Your task to perform on an android device: choose inbox layout in the gmail app Image 0: 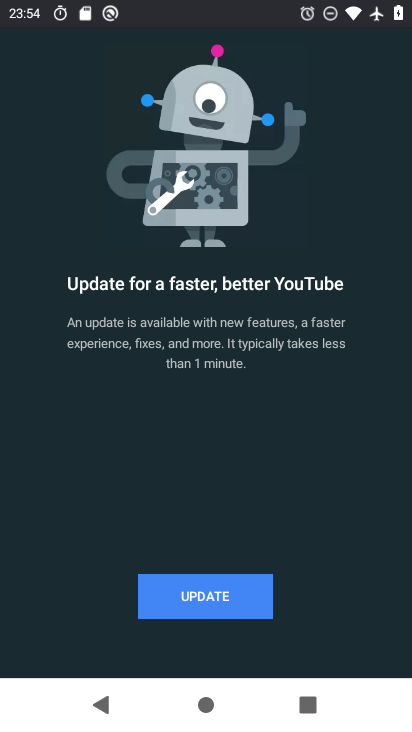
Step 0: press home button
Your task to perform on an android device: choose inbox layout in the gmail app Image 1: 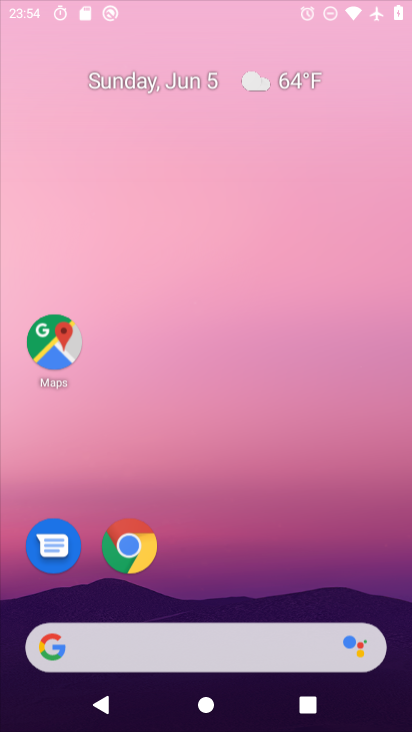
Step 1: drag from (205, 505) to (308, 28)
Your task to perform on an android device: choose inbox layout in the gmail app Image 2: 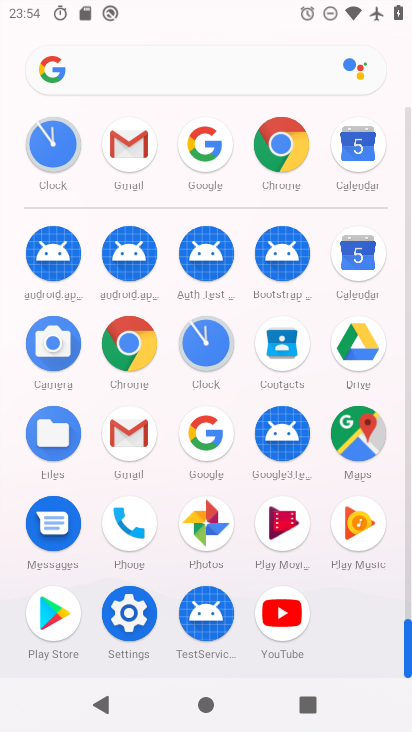
Step 2: click (131, 433)
Your task to perform on an android device: choose inbox layout in the gmail app Image 3: 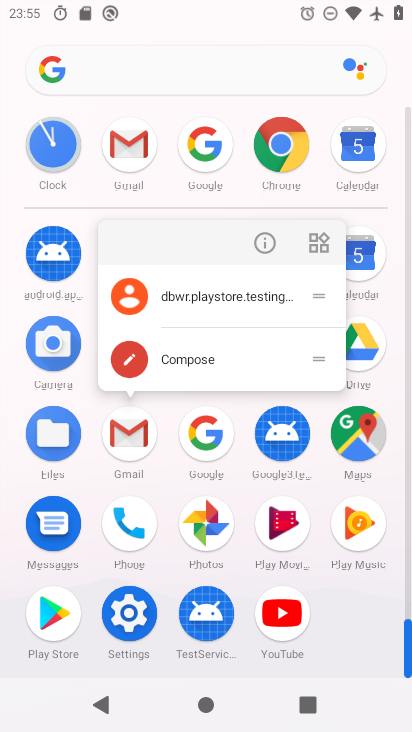
Step 3: click (260, 246)
Your task to perform on an android device: choose inbox layout in the gmail app Image 4: 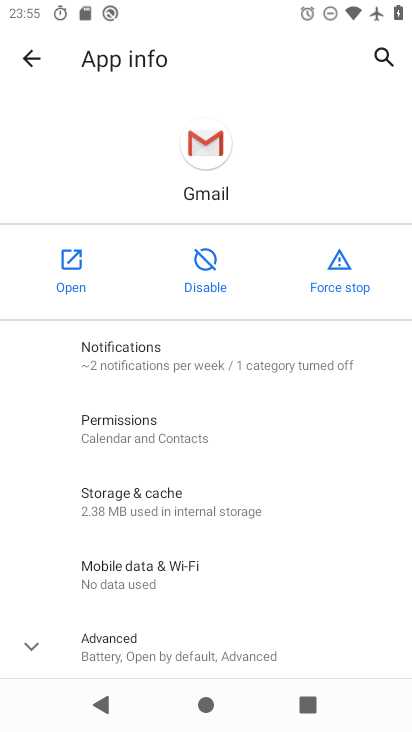
Step 4: click (75, 262)
Your task to perform on an android device: choose inbox layout in the gmail app Image 5: 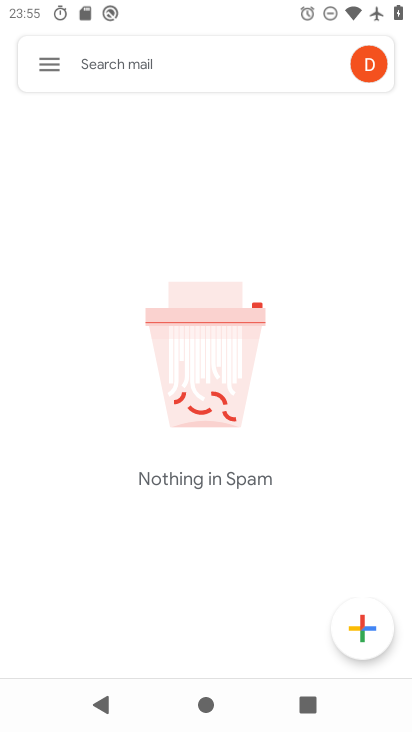
Step 5: click (44, 69)
Your task to perform on an android device: choose inbox layout in the gmail app Image 6: 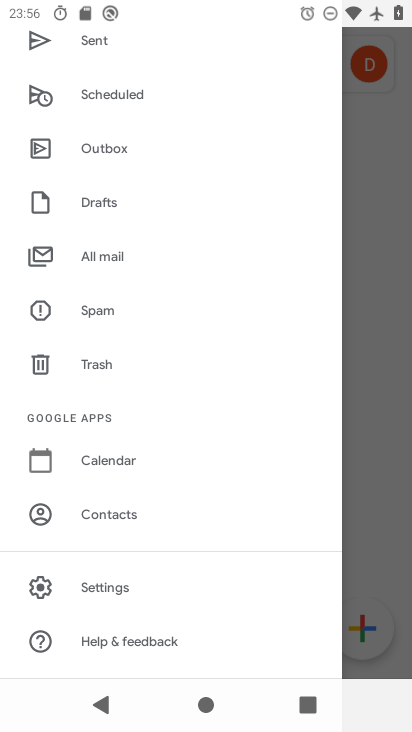
Step 6: drag from (174, 77) to (207, 603)
Your task to perform on an android device: choose inbox layout in the gmail app Image 7: 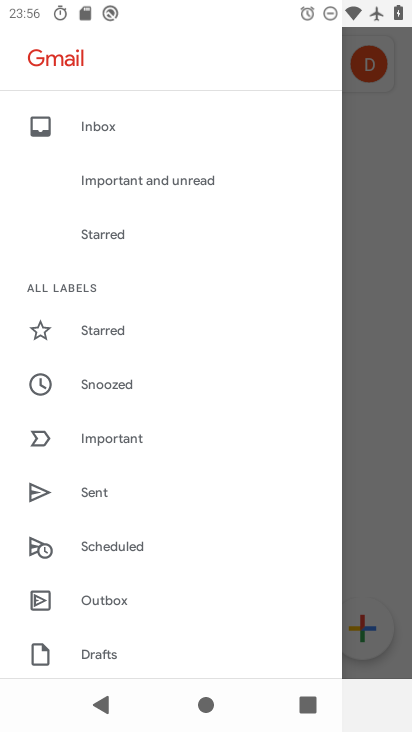
Step 7: click (97, 136)
Your task to perform on an android device: choose inbox layout in the gmail app Image 8: 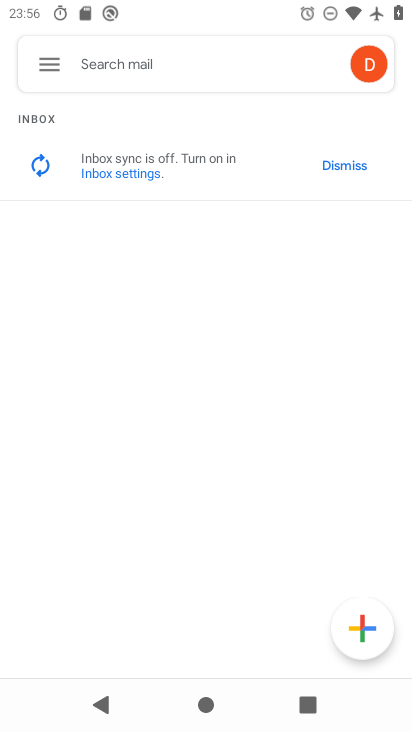
Step 8: drag from (276, 451) to (259, 190)
Your task to perform on an android device: choose inbox layout in the gmail app Image 9: 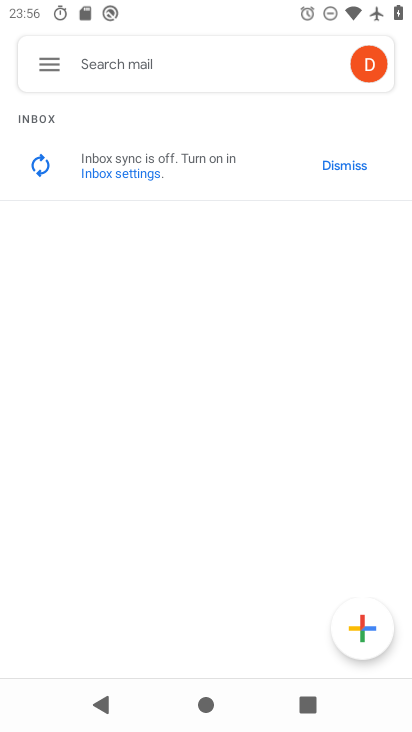
Step 9: drag from (252, 500) to (260, 301)
Your task to perform on an android device: choose inbox layout in the gmail app Image 10: 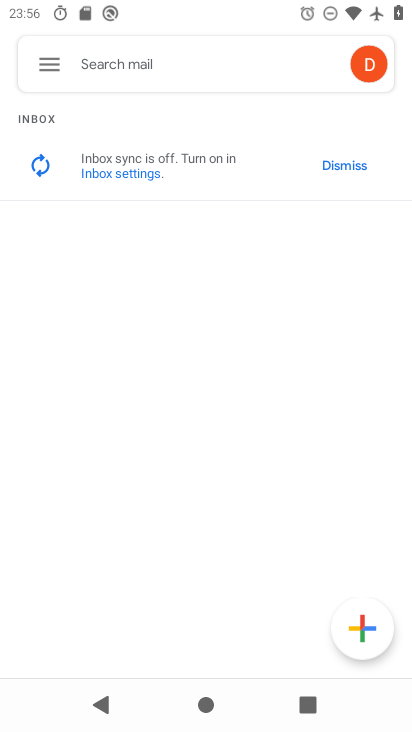
Step 10: click (49, 75)
Your task to perform on an android device: choose inbox layout in the gmail app Image 11: 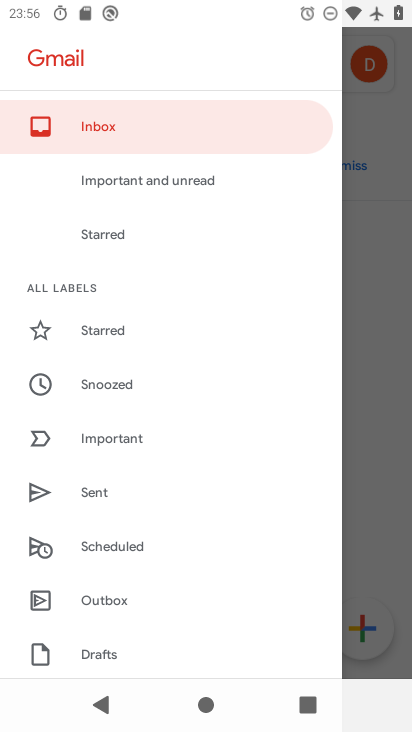
Step 11: click (143, 144)
Your task to perform on an android device: choose inbox layout in the gmail app Image 12: 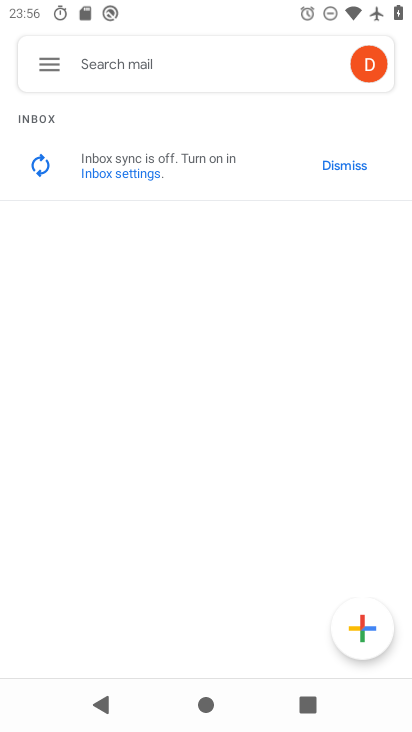
Step 12: drag from (180, 501) to (214, 285)
Your task to perform on an android device: choose inbox layout in the gmail app Image 13: 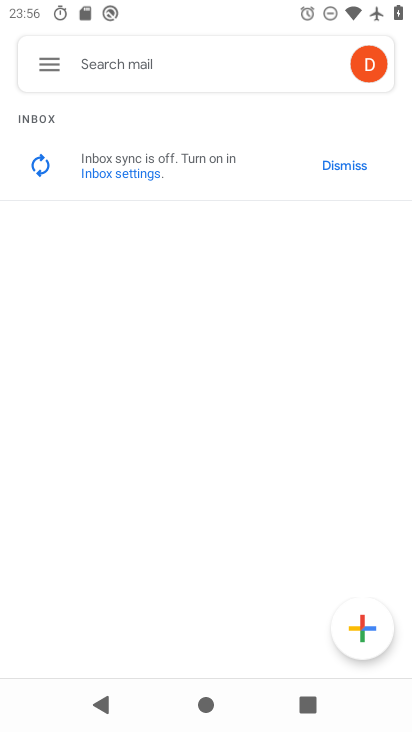
Step 13: drag from (252, 424) to (243, 298)
Your task to perform on an android device: choose inbox layout in the gmail app Image 14: 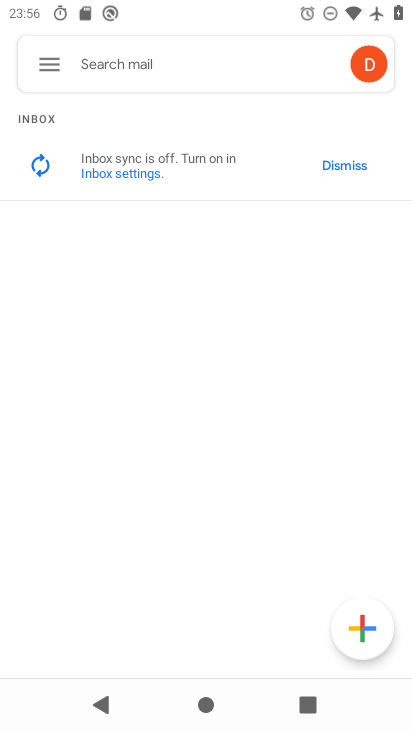
Step 14: drag from (226, 425) to (257, 296)
Your task to perform on an android device: choose inbox layout in the gmail app Image 15: 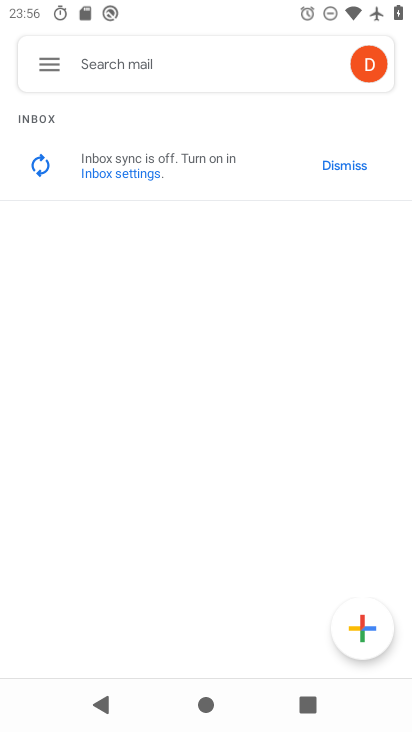
Step 15: click (56, 56)
Your task to perform on an android device: choose inbox layout in the gmail app Image 16: 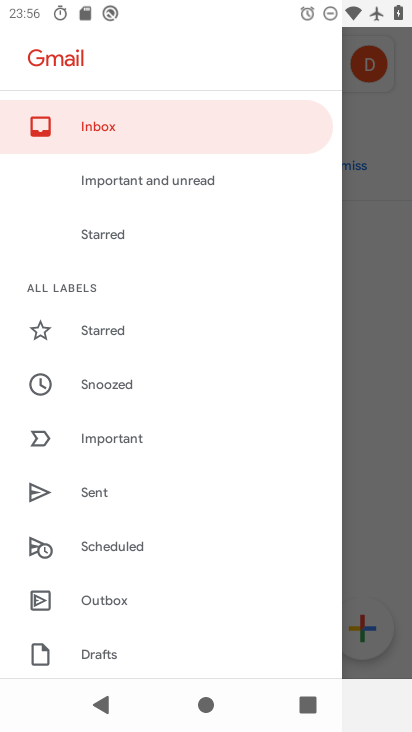
Step 16: click (396, 420)
Your task to perform on an android device: choose inbox layout in the gmail app Image 17: 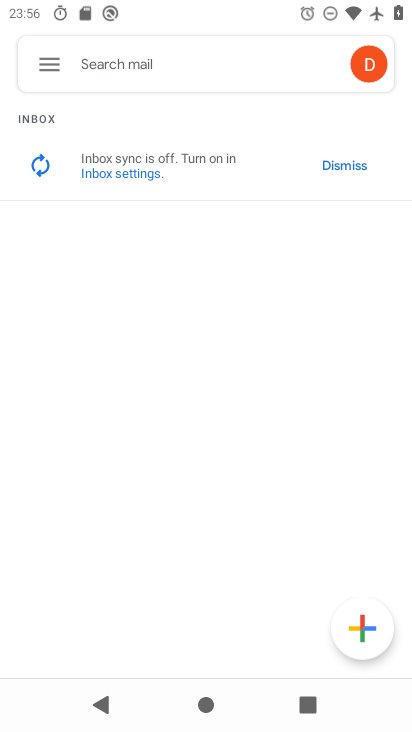
Step 17: task complete